Your task to perform on an android device: Open display settings Image 0: 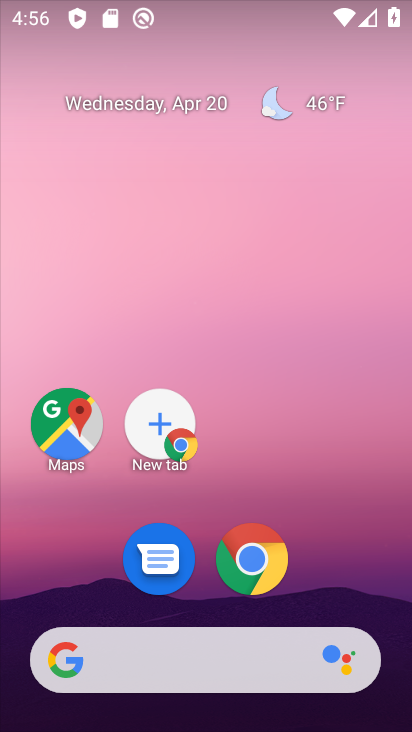
Step 0: drag from (317, 585) to (281, 199)
Your task to perform on an android device: Open display settings Image 1: 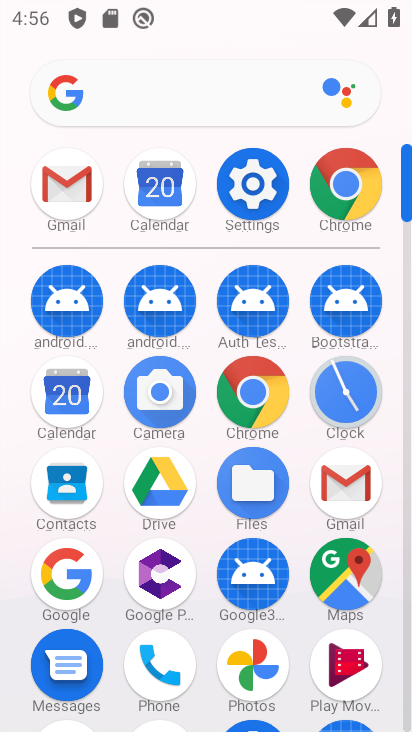
Step 1: click (258, 180)
Your task to perform on an android device: Open display settings Image 2: 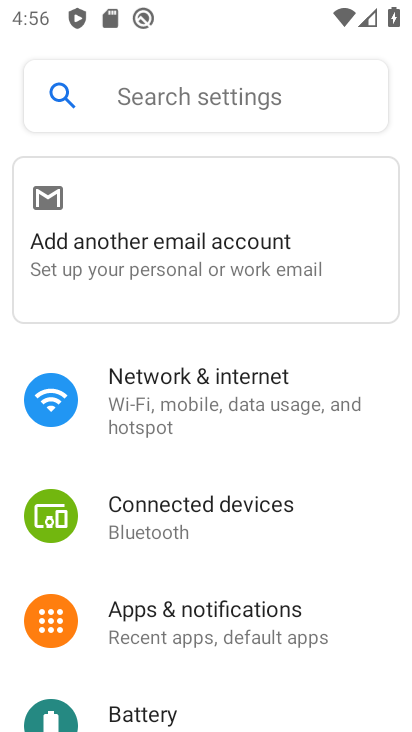
Step 2: drag from (230, 508) to (276, 308)
Your task to perform on an android device: Open display settings Image 3: 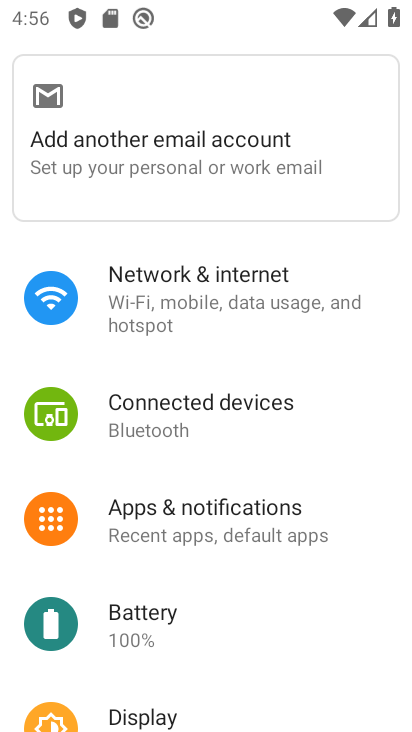
Step 3: drag from (185, 662) to (216, 465)
Your task to perform on an android device: Open display settings Image 4: 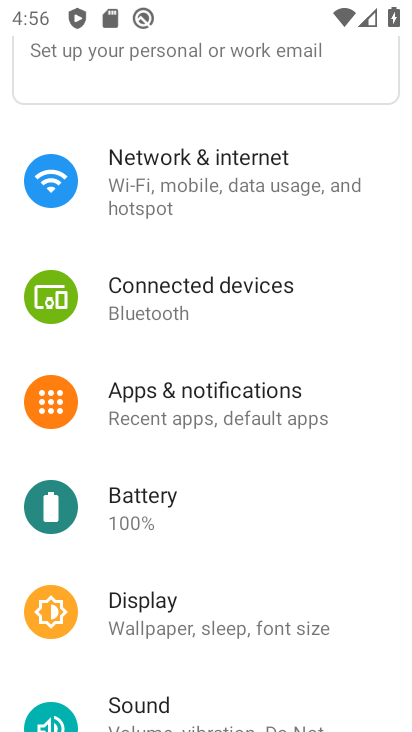
Step 4: click (173, 618)
Your task to perform on an android device: Open display settings Image 5: 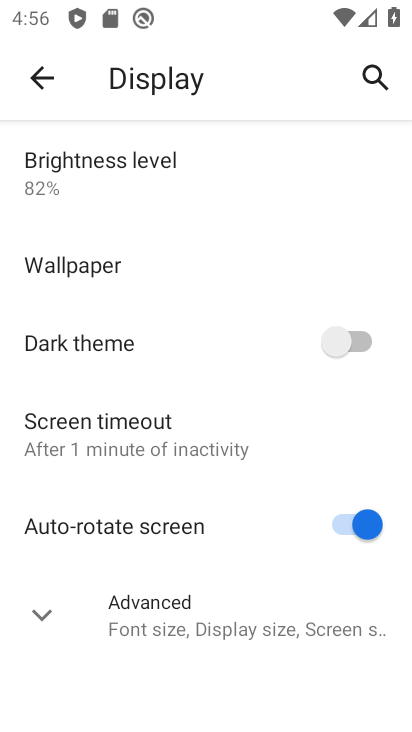
Step 5: task complete